Your task to perform on an android device: turn on sleep mode Image 0: 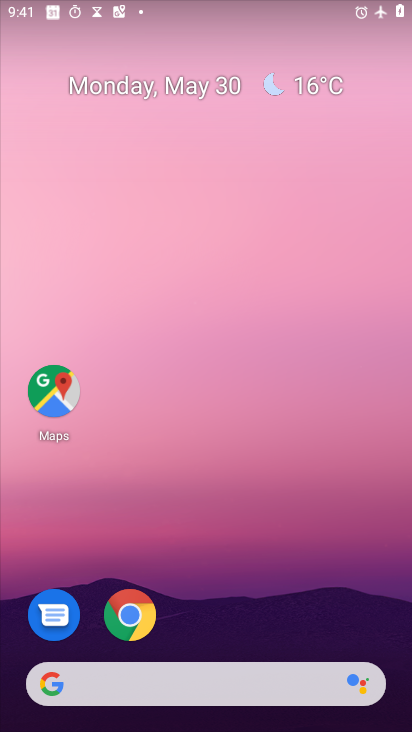
Step 0: drag from (315, 609) to (411, 386)
Your task to perform on an android device: turn on sleep mode Image 1: 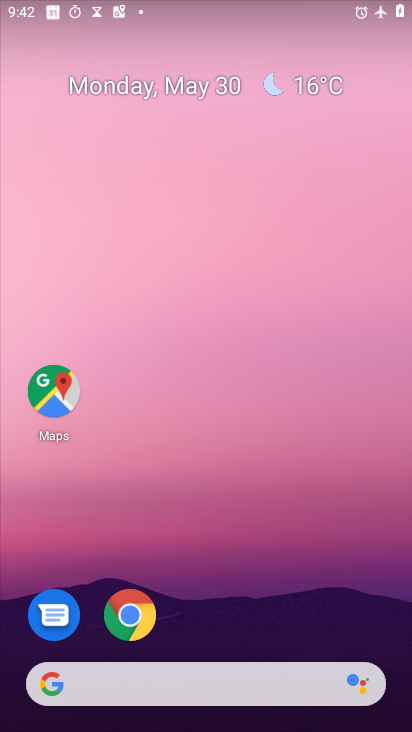
Step 1: drag from (319, 587) to (295, 22)
Your task to perform on an android device: turn on sleep mode Image 2: 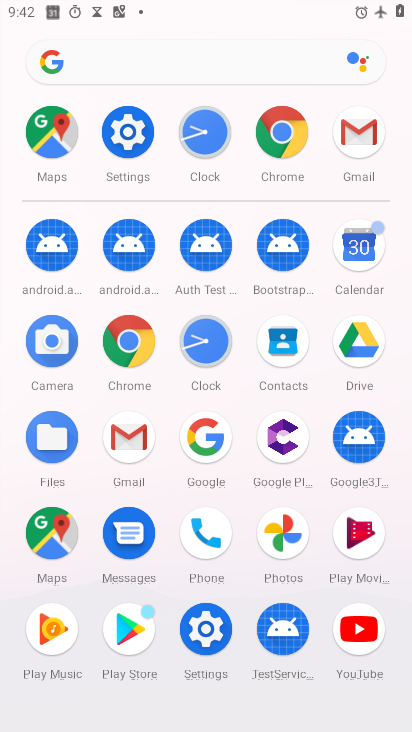
Step 2: click (209, 357)
Your task to perform on an android device: turn on sleep mode Image 3: 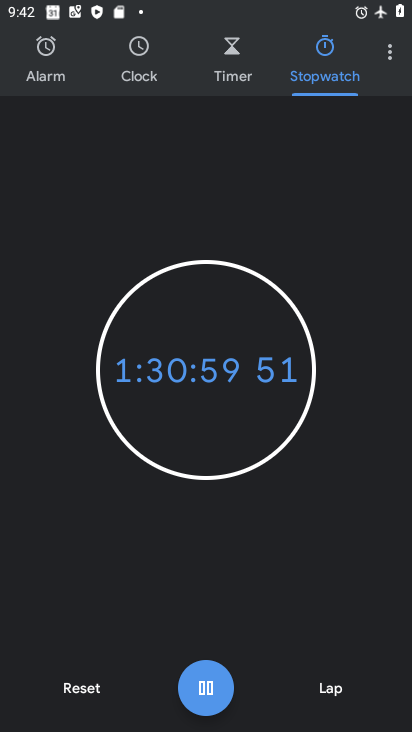
Step 3: press home button
Your task to perform on an android device: turn on sleep mode Image 4: 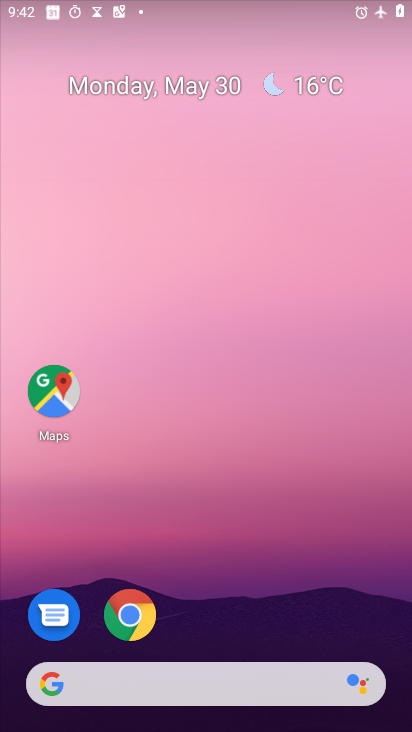
Step 4: drag from (306, 590) to (310, 38)
Your task to perform on an android device: turn on sleep mode Image 5: 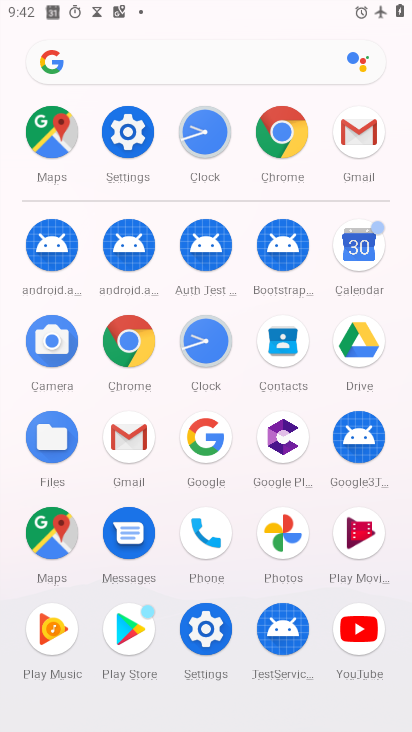
Step 5: click (117, 119)
Your task to perform on an android device: turn on sleep mode Image 6: 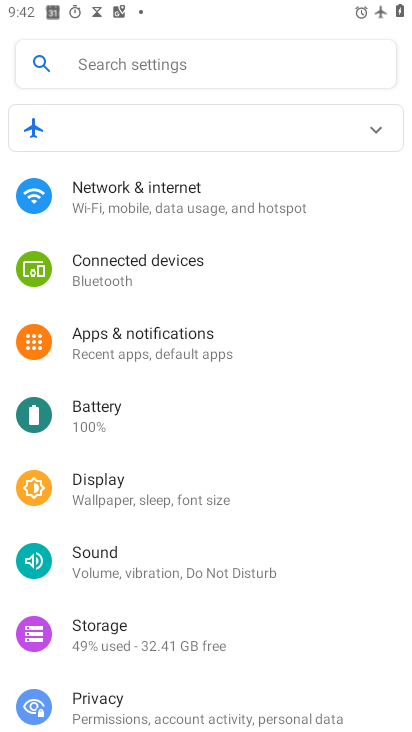
Step 6: click (150, 495)
Your task to perform on an android device: turn on sleep mode Image 7: 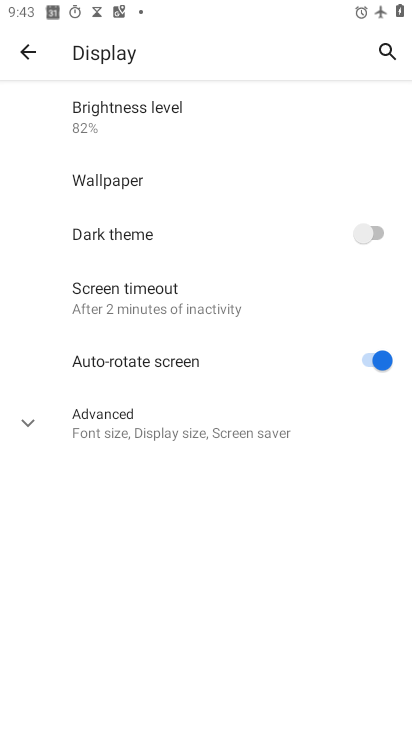
Step 7: click (170, 306)
Your task to perform on an android device: turn on sleep mode Image 8: 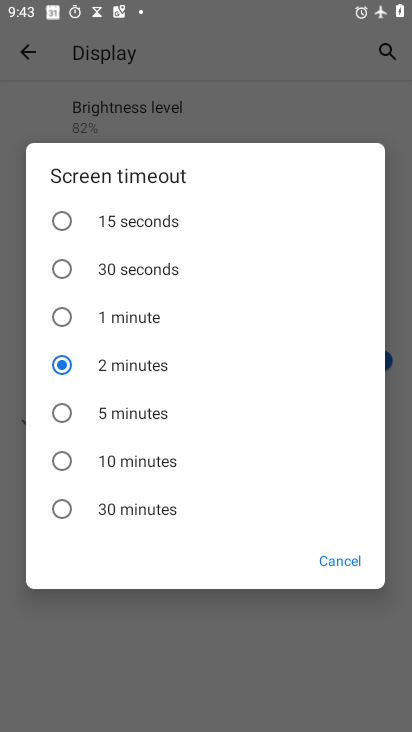
Step 8: task complete